Your task to perform on an android device: When is my next appointment? Image 0: 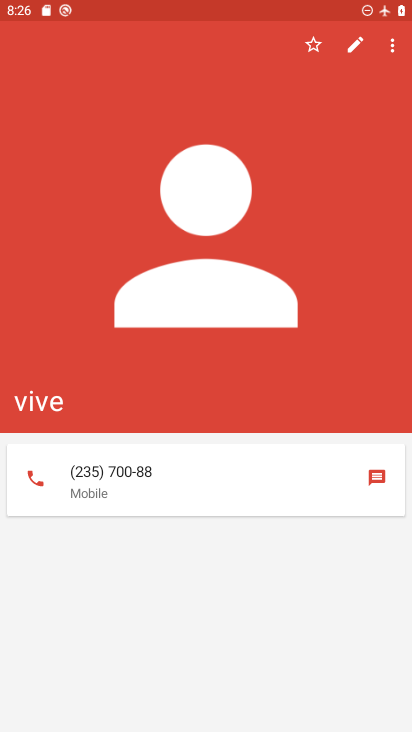
Step 0: press home button
Your task to perform on an android device: When is my next appointment? Image 1: 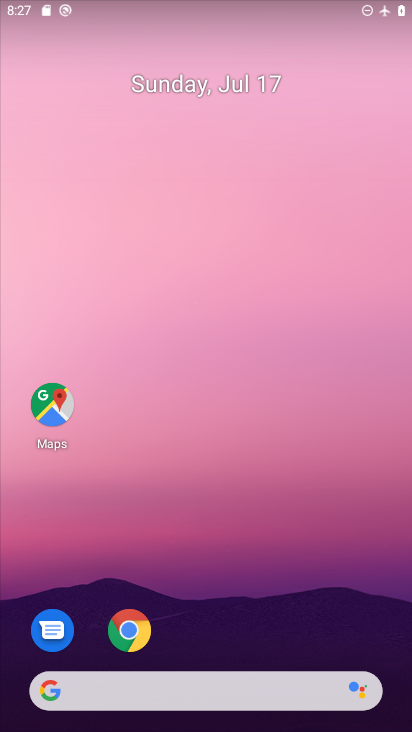
Step 1: drag from (198, 674) to (300, 88)
Your task to perform on an android device: When is my next appointment? Image 2: 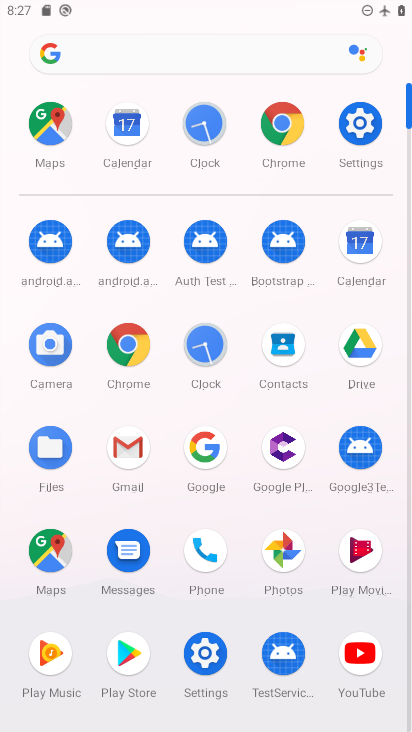
Step 2: click (359, 248)
Your task to perform on an android device: When is my next appointment? Image 3: 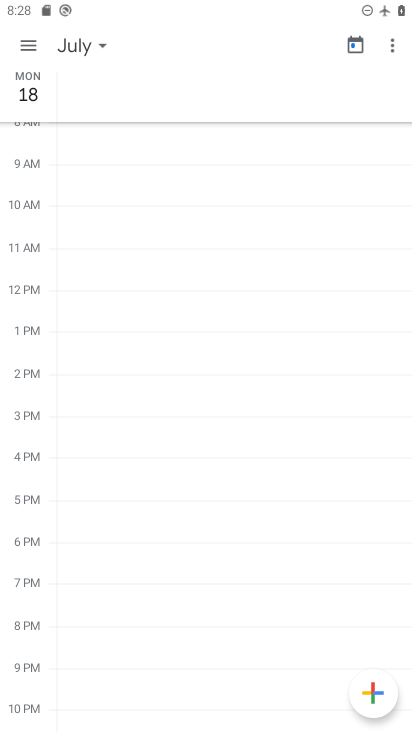
Step 3: task complete